Your task to perform on an android device: Go to display settings Image 0: 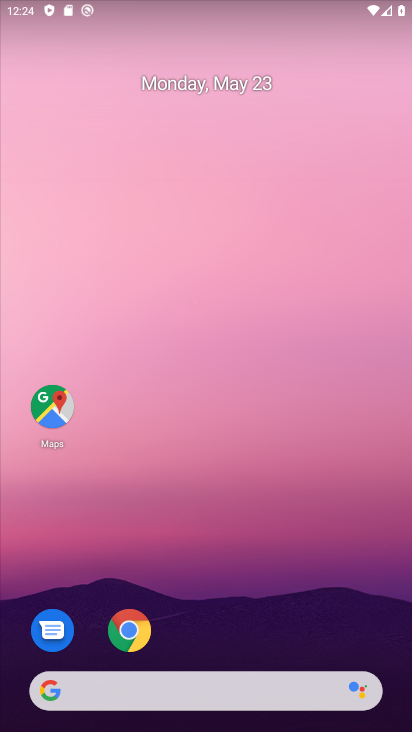
Step 0: drag from (196, 380) to (167, 43)
Your task to perform on an android device: Go to display settings Image 1: 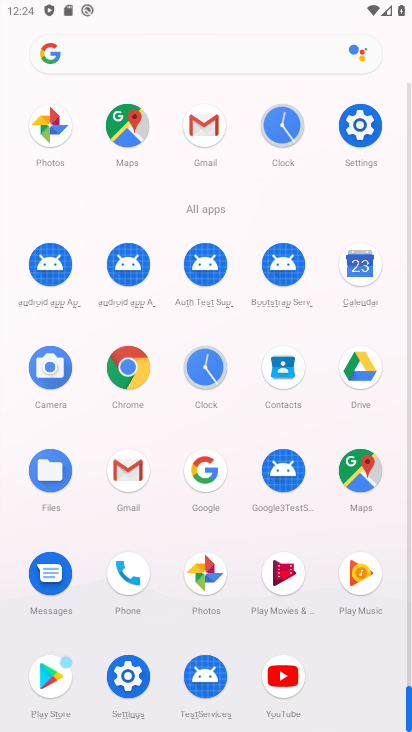
Step 1: click (127, 675)
Your task to perform on an android device: Go to display settings Image 2: 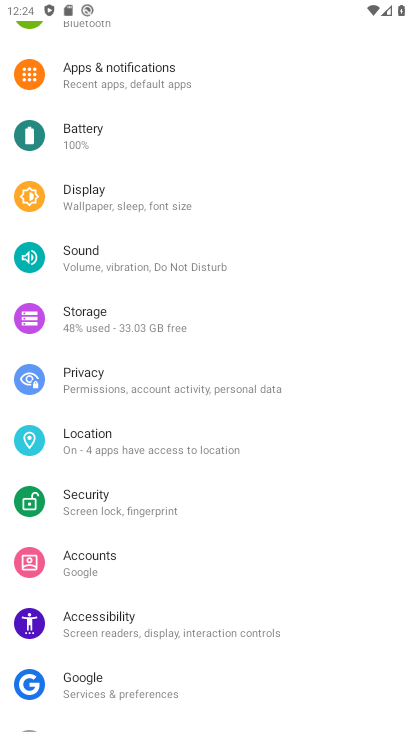
Step 2: click (104, 199)
Your task to perform on an android device: Go to display settings Image 3: 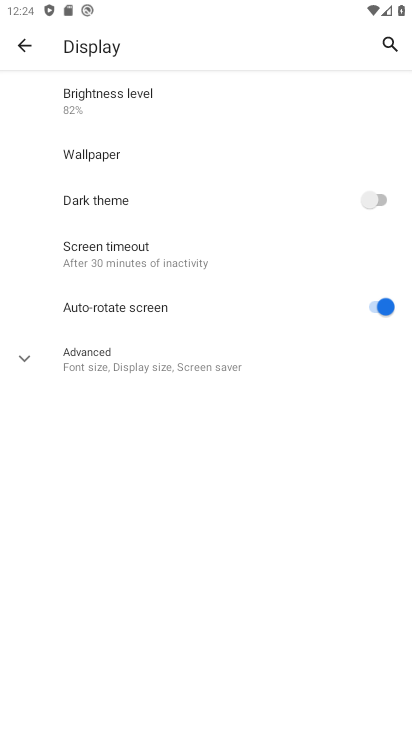
Step 3: click (34, 360)
Your task to perform on an android device: Go to display settings Image 4: 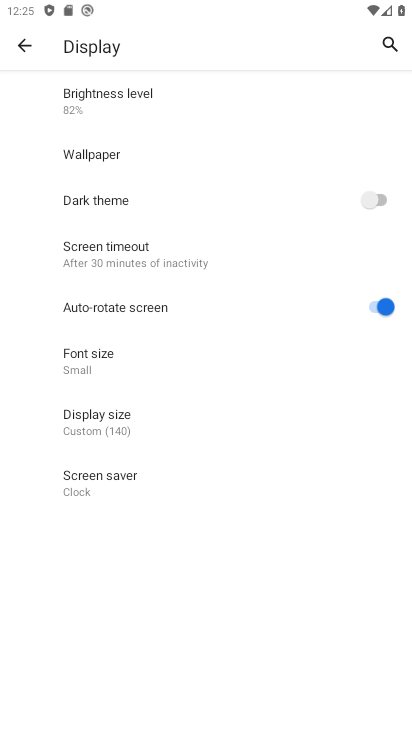
Step 4: task complete